Your task to perform on an android device: show emergency info Image 0: 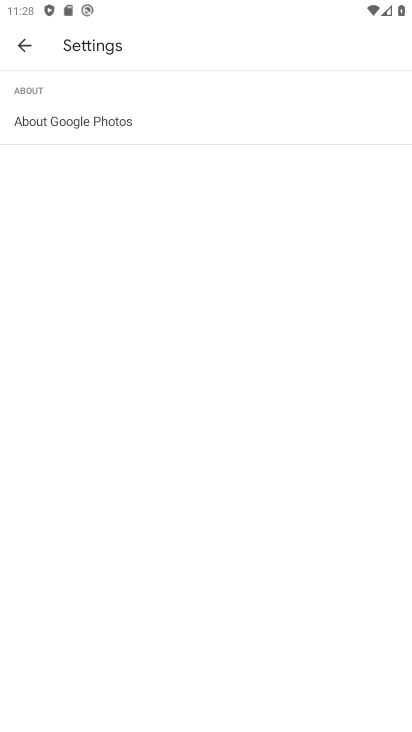
Step 0: press home button
Your task to perform on an android device: show emergency info Image 1: 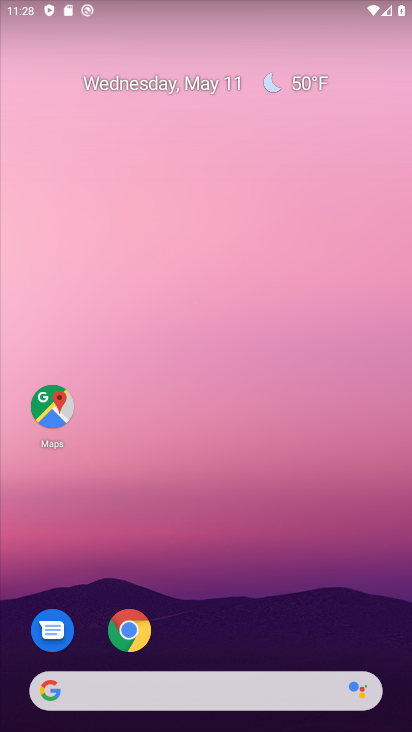
Step 1: drag from (215, 592) to (215, 223)
Your task to perform on an android device: show emergency info Image 2: 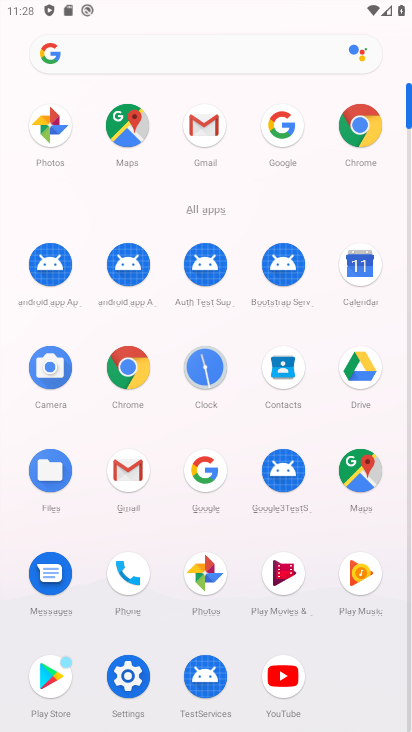
Step 2: click (122, 678)
Your task to perform on an android device: show emergency info Image 3: 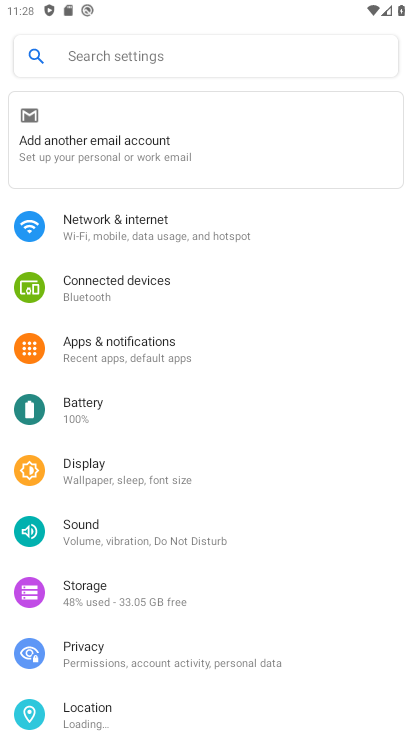
Step 3: drag from (150, 673) to (166, 261)
Your task to perform on an android device: show emergency info Image 4: 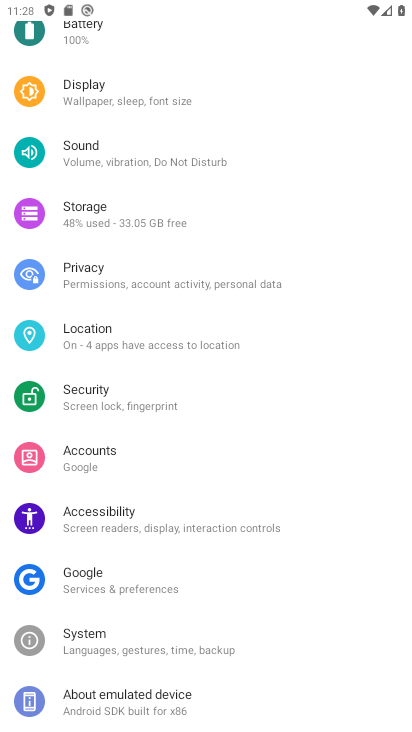
Step 4: drag from (134, 678) to (123, 230)
Your task to perform on an android device: show emergency info Image 5: 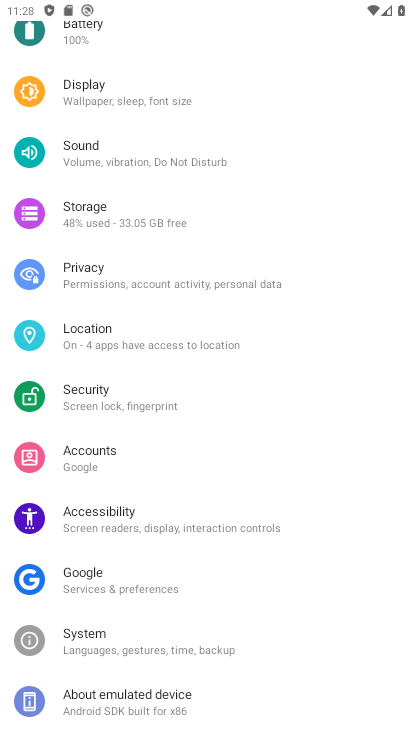
Step 5: click (163, 697)
Your task to perform on an android device: show emergency info Image 6: 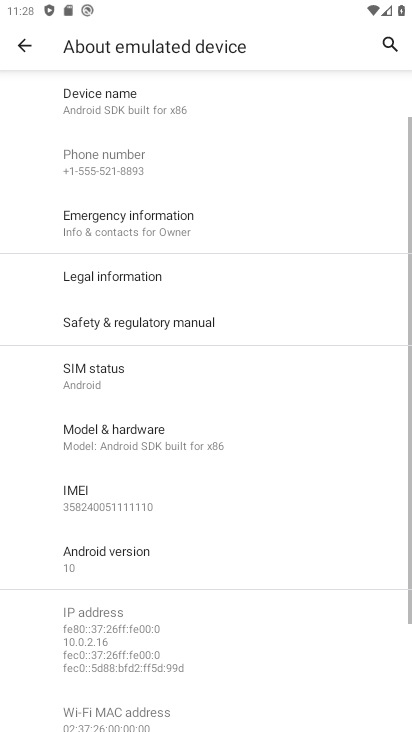
Step 6: click (151, 213)
Your task to perform on an android device: show emergency info Image 7: 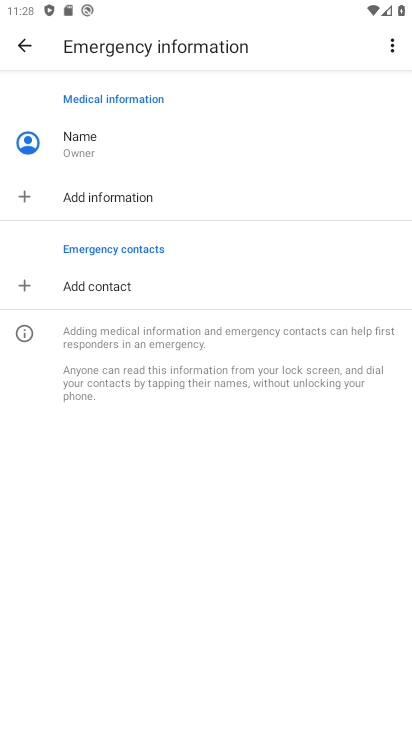
Step 7: task complete